Your task to perform on an android device: turn on airplane mode Image 0: 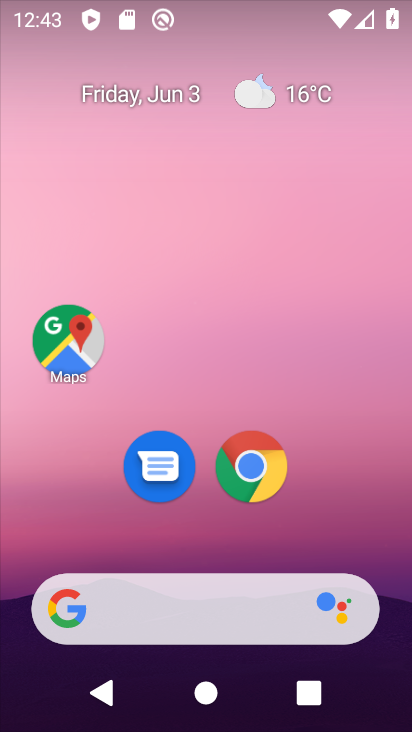
Step 0: drag from (210, 560) to (236, 159)
Your task to perform on an android device: turn on airplane mode Image 1: 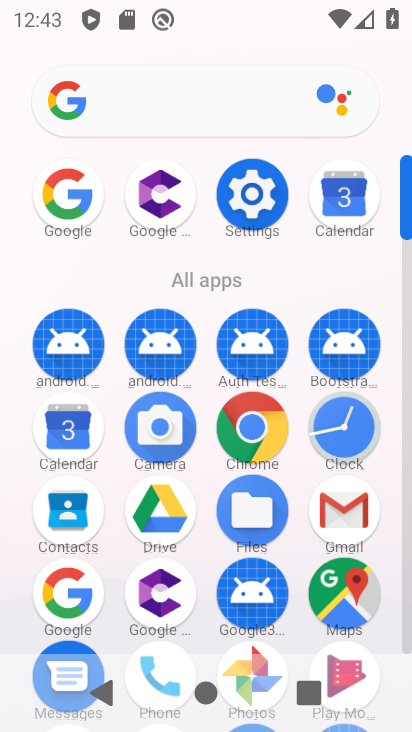
Step 1: click (248, 202)
Your task to perform on an android device: turn on airplane mode Image 2: 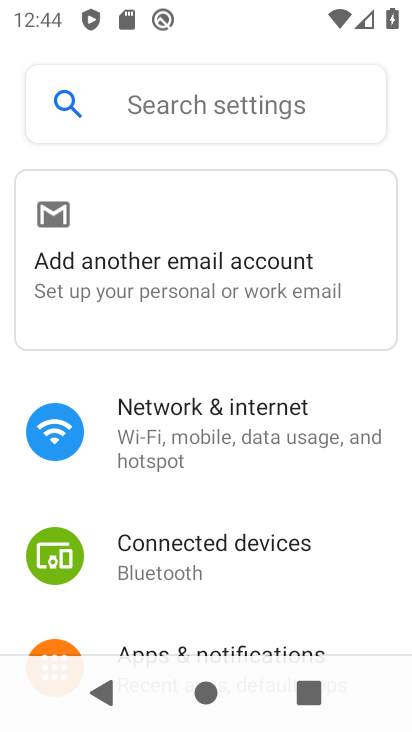
Step 2: drag from (166, 646) to (211, 200)
Your task to perform on an android device: turn on airplane mode Image 3: 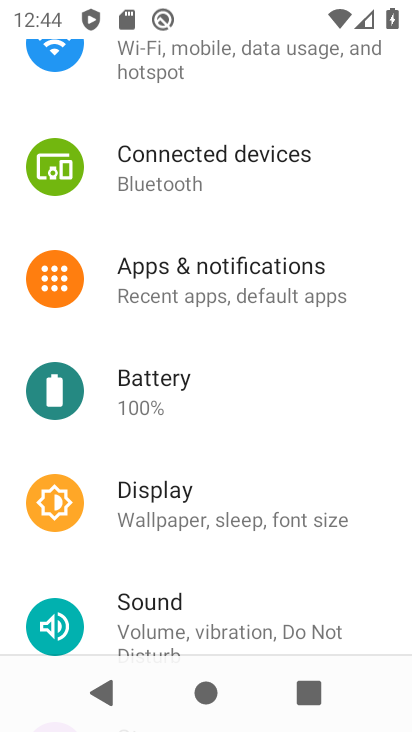
Step 3: click (178, 290)
Your task to perform on an android device: turn on airplane mode Image 4: 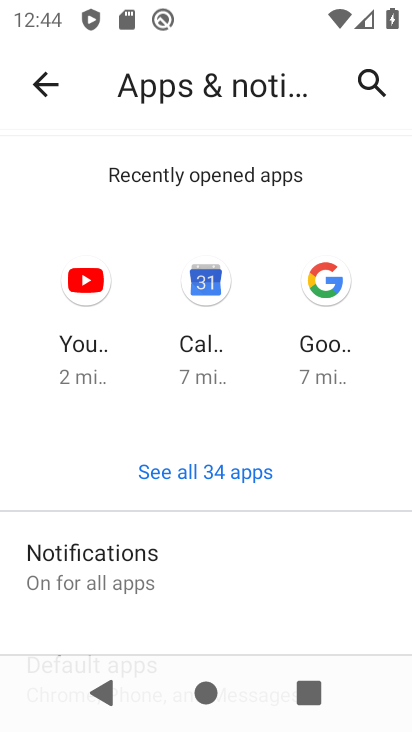
Step 4: press back button
Your task to perform on an android device: turn on airplane mode Image 5: 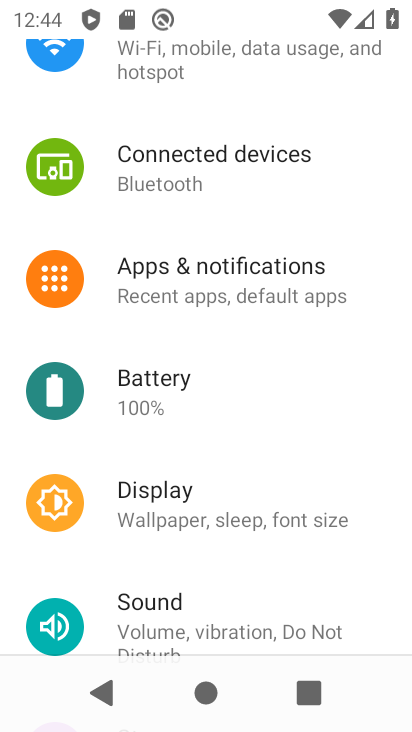
Step 5: click (198, 70)
Your task to perform on an android device: turn on airplane mode Image 6: 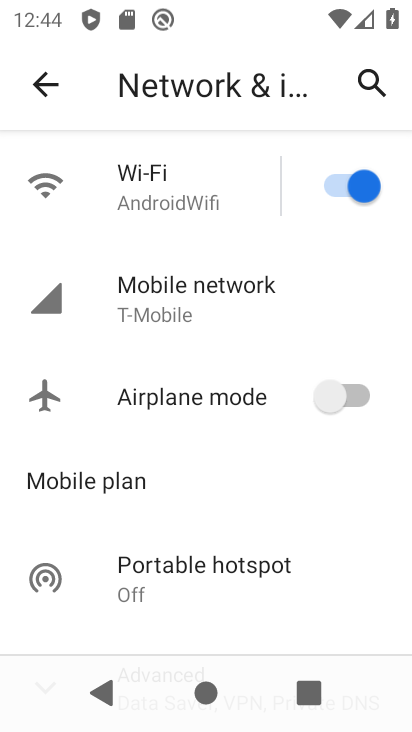
Step 6: click (336, 394)
Your task to perform on an android device: turn on airplane mode Image 7: 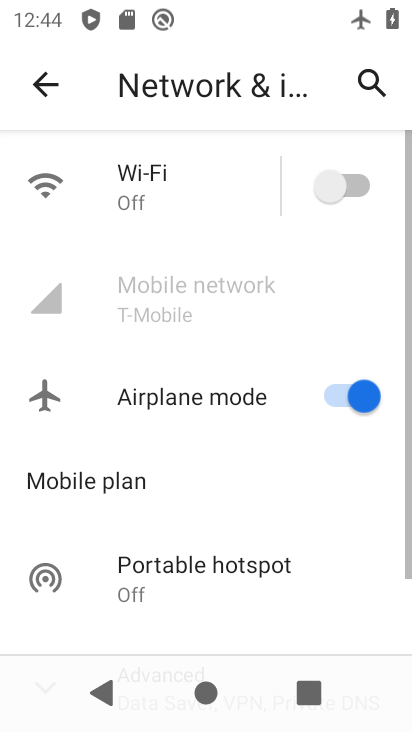
Step 7: task complete